Your task to perform on an android device: open wifi settings Image 0: 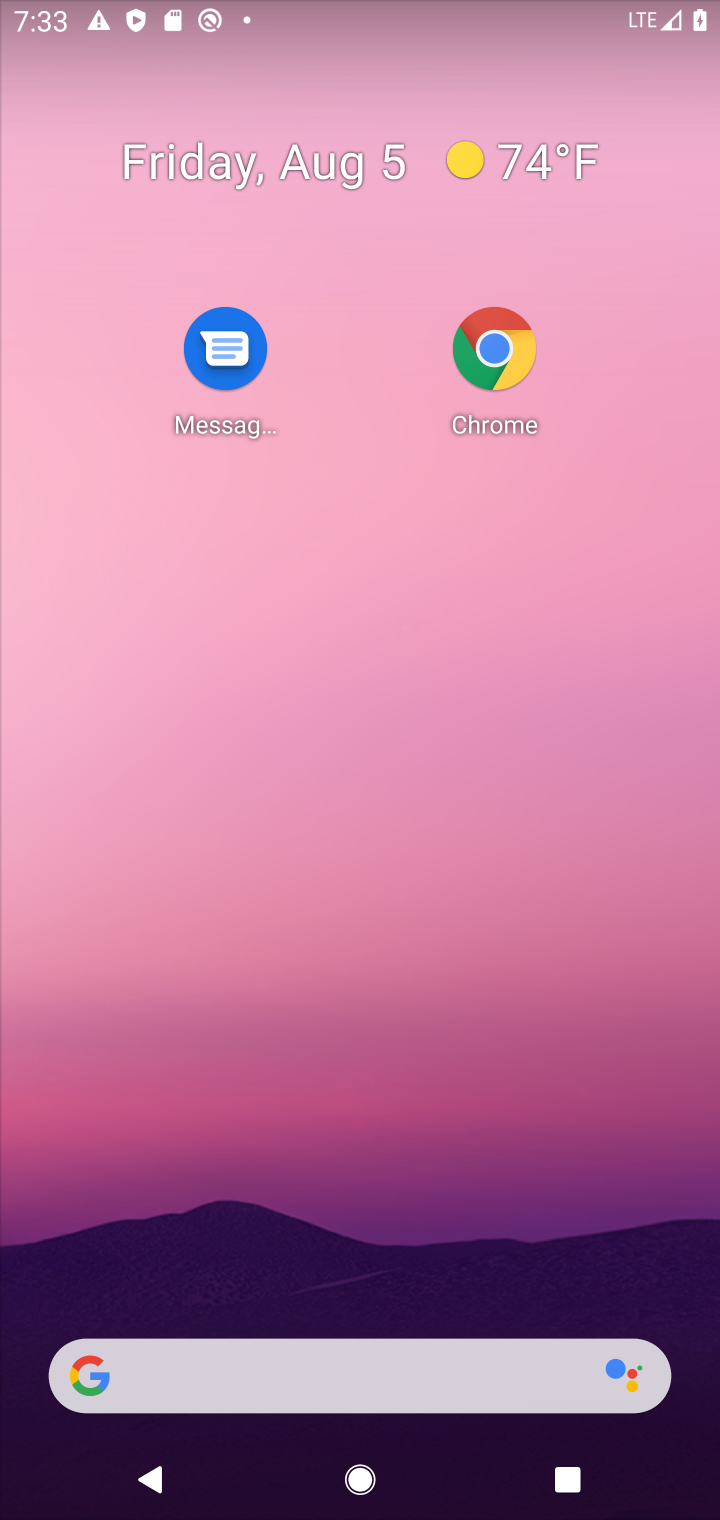
Step 0: drag from (522, 1377) to (562, 701)
Your task to perform on an android device: open wifi settings Image 1: 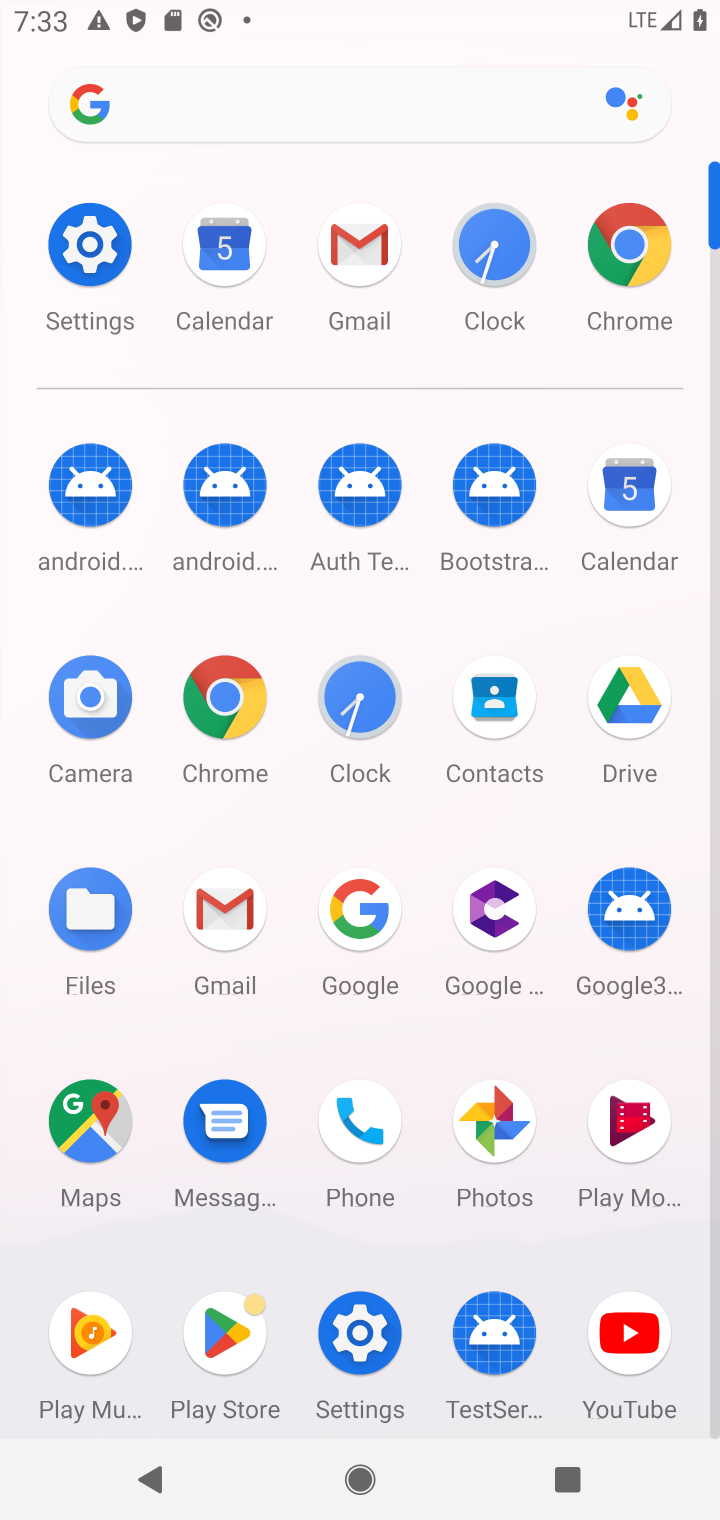
Step 1: click (78, 262)
Your task to perform on an android device: open wifi settings Image 2: 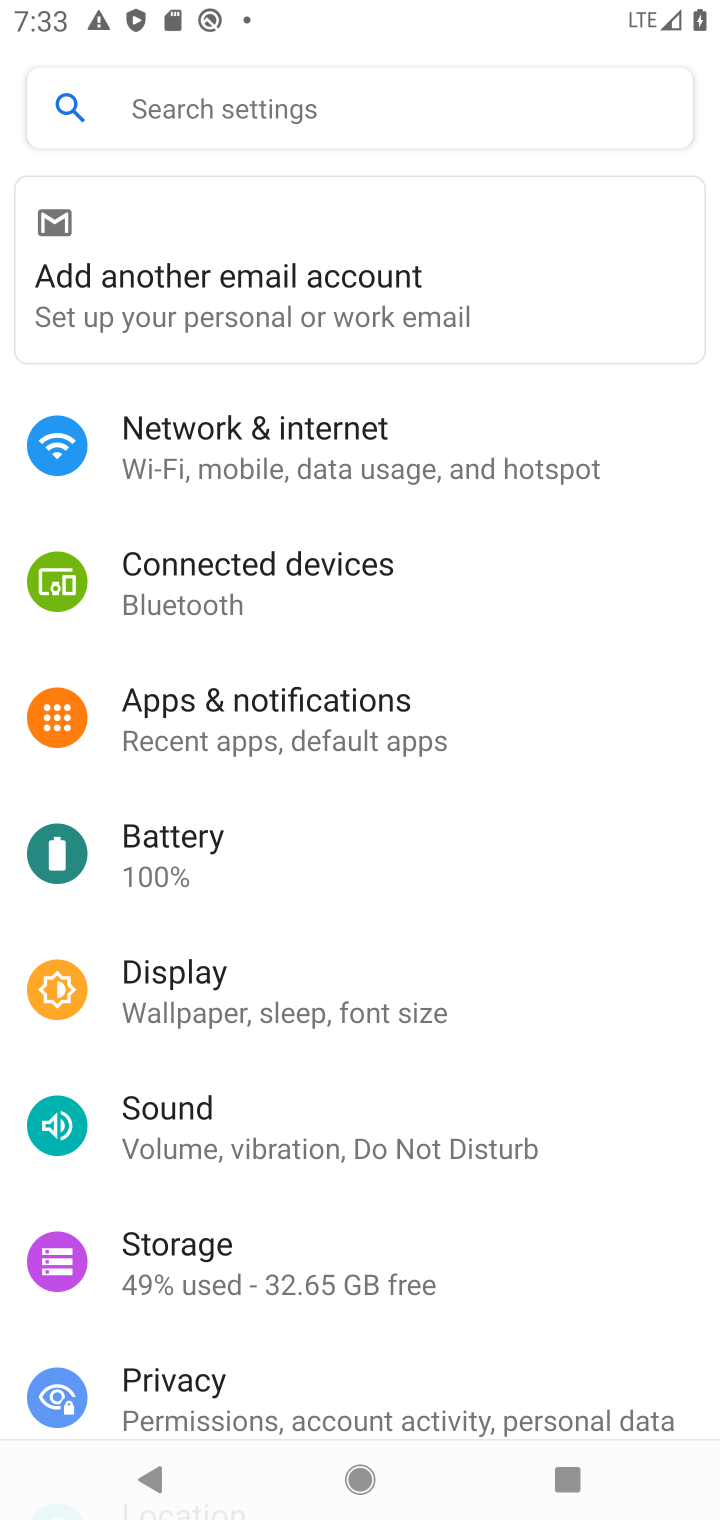
Step 2: click (265, 492)
Your task to perform on an android device: open wifi settings Image 3: 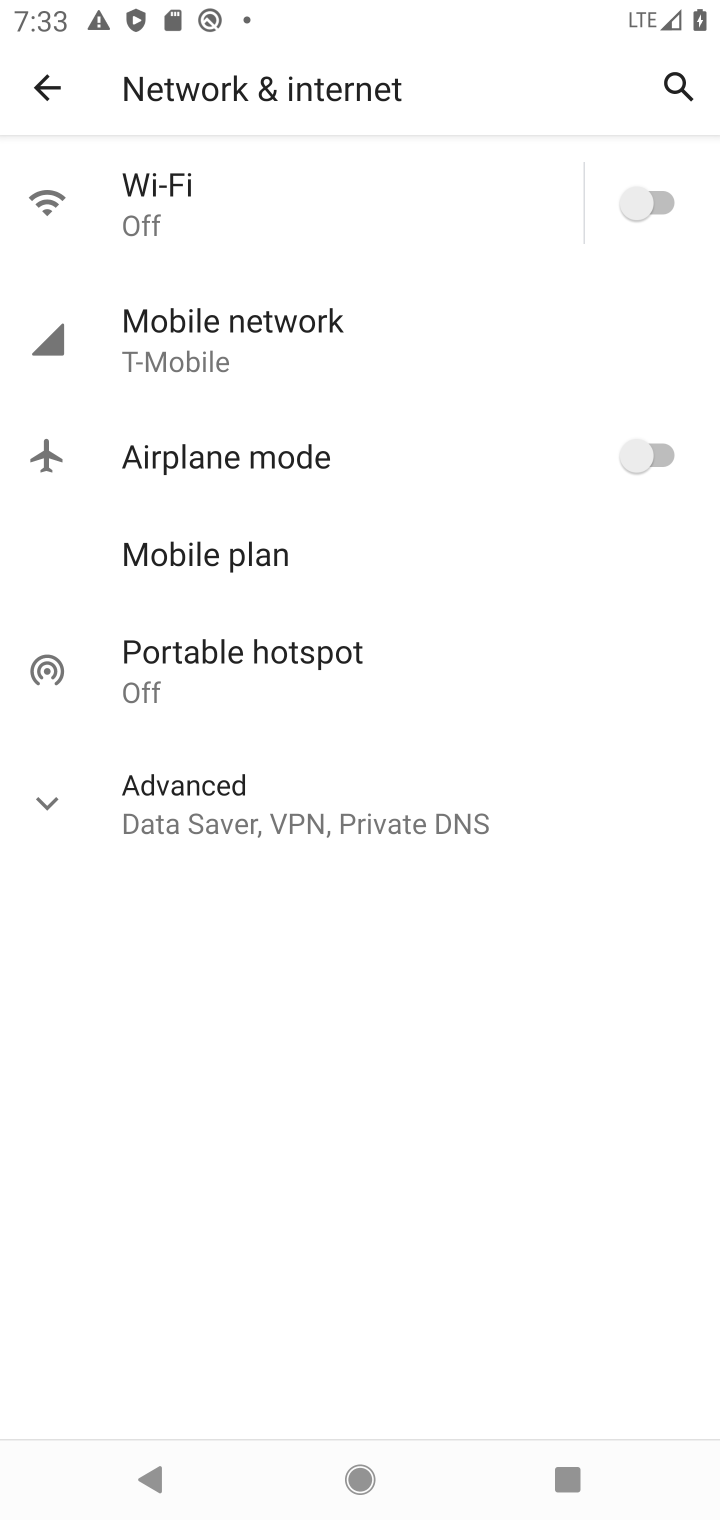
Step 3: click (300, 212)
Your task to perform on an android device: open wifi settings Image 4: 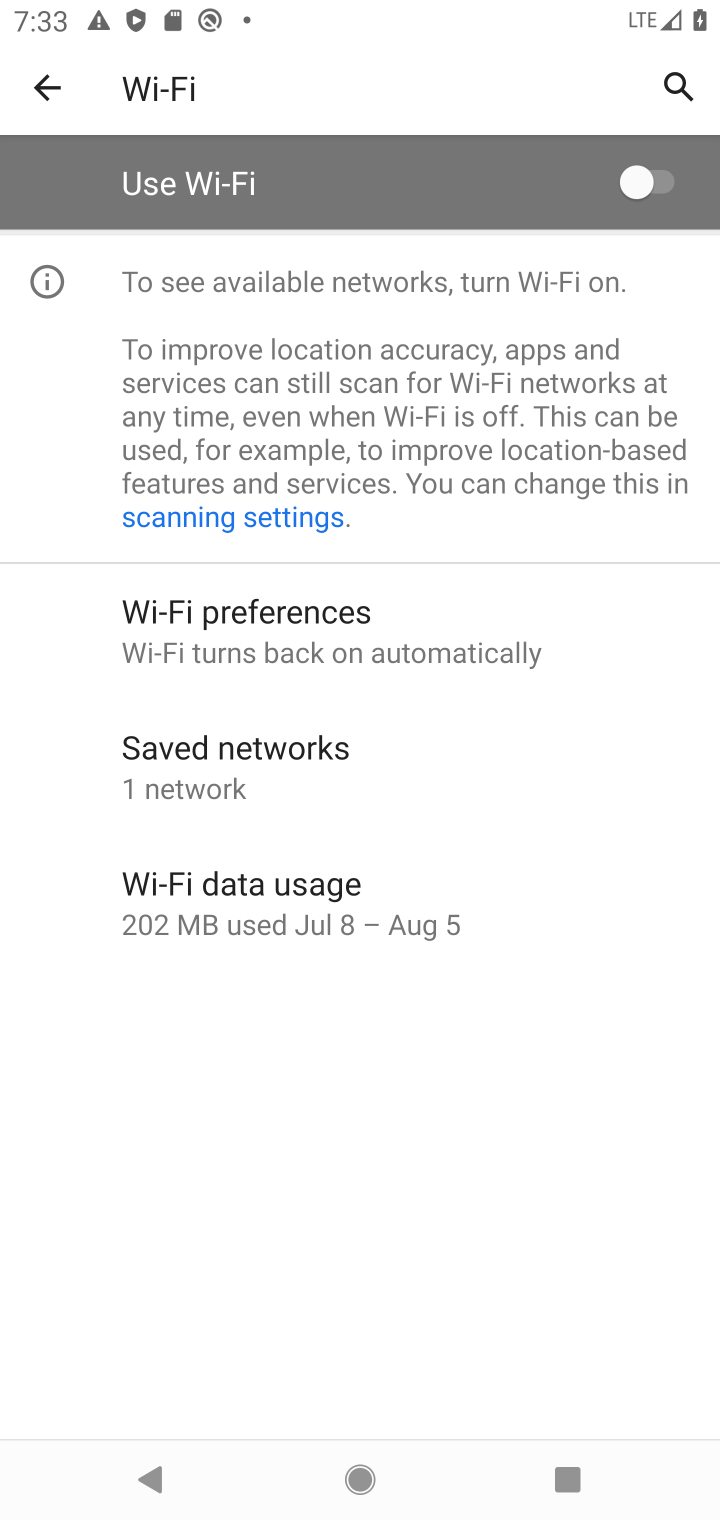
Step 4: task complete